Your task to perform on an android device: open a bookmark in the chrome app Image 0: 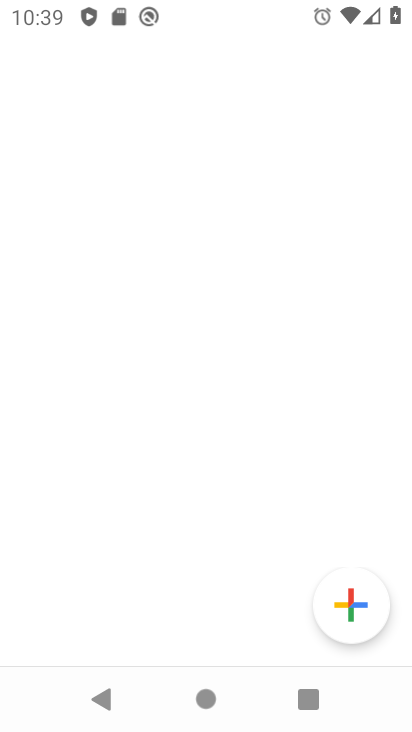
Step 0: drag from (288, 663) to (372, 276)
Your task to perform on an android device: open a bookmark in the chrome app Image 1: 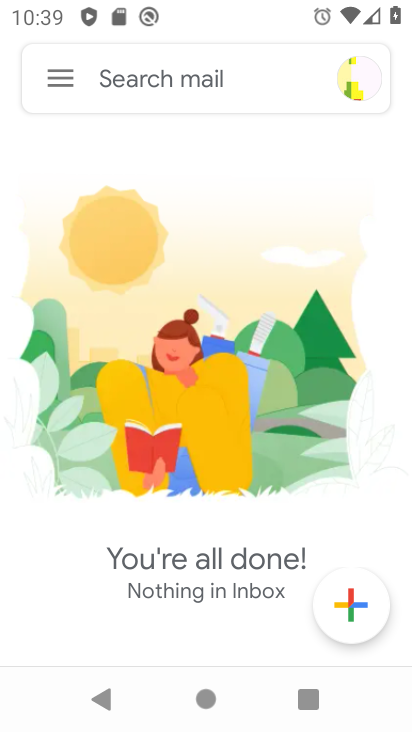
Step 1: press home button
Your task to perform on an android device: open a bookmark in the chrome app Image 2: 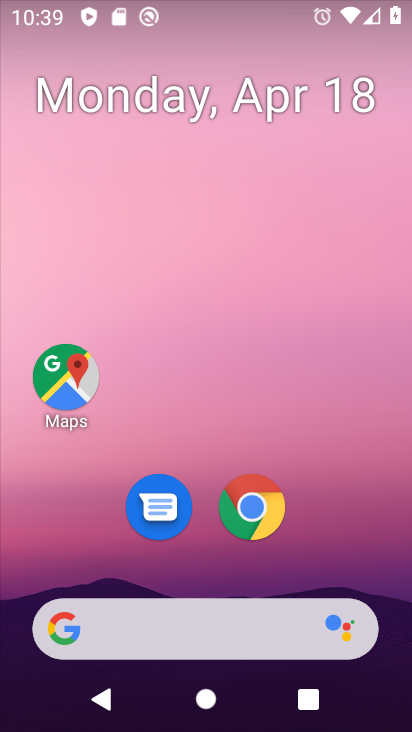
Step 2: drag from (275, 652) to (264, 245)
Your task to perform on an android device: open a bookmark in the chrome app Image 3: 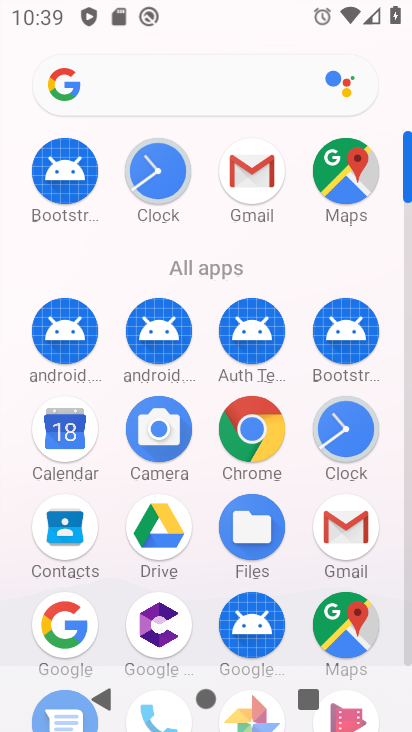
Step 3: click (237, 434)
Your task to perform on an android device: open a bookmark in the chrome app Image 4: 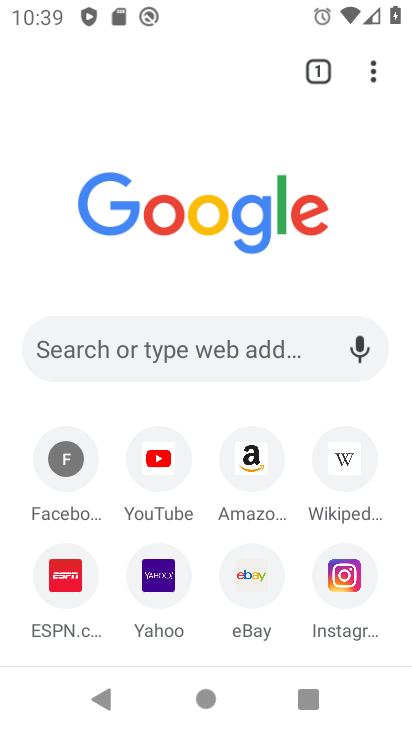
Step 4: click (375, 69)
Your task to perform on an android device: open a bookmark in the chrome app Image 5: 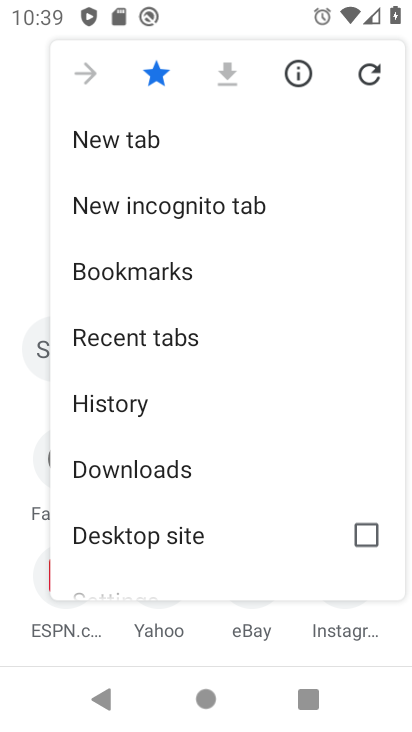
Step 5: click (158, 260)
Your task to perform on an android device: open a bookmark in the chrome app Image 6: 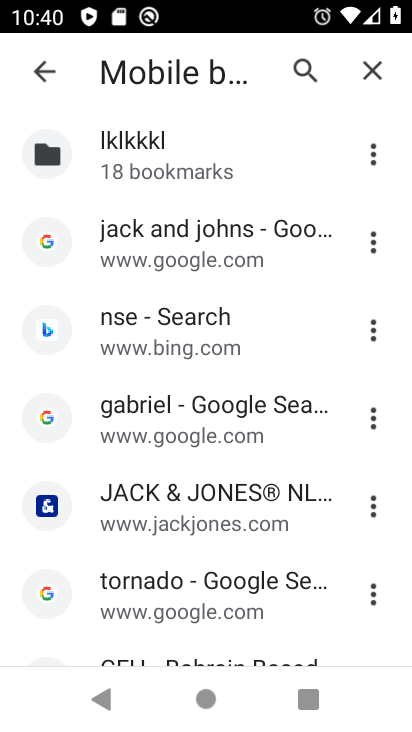
Step 6: click (149, 337)
Your task to perform on an android device: open a bookmark in the chrome app Image 7: 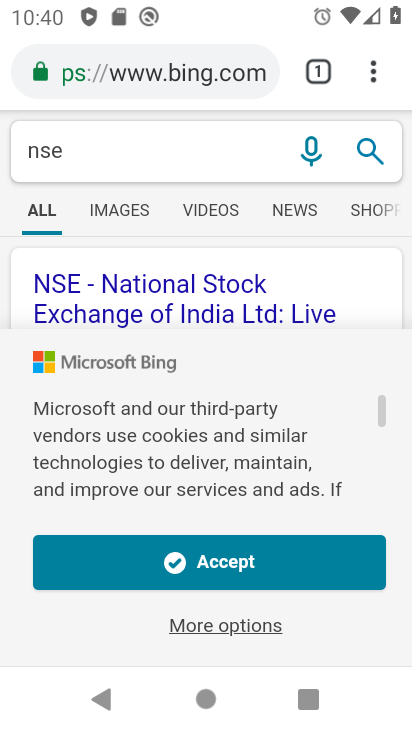
Step 7: task complete